Your task to perform on an android device: install app "WhatsApp Messenger" Image 0: 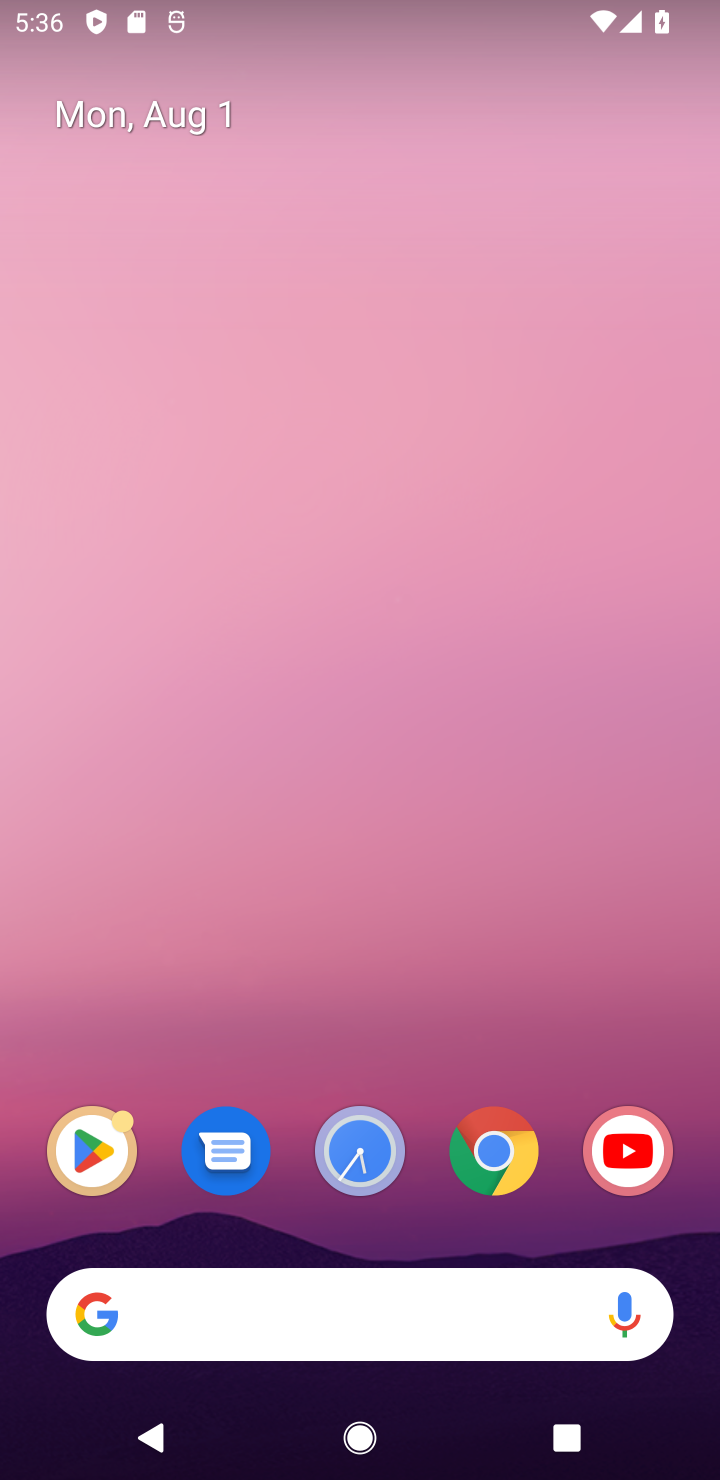
Step 0: click (92, 1156)
Your task to perform on an android device: install app "WhatsApp Messenger" Image 1: 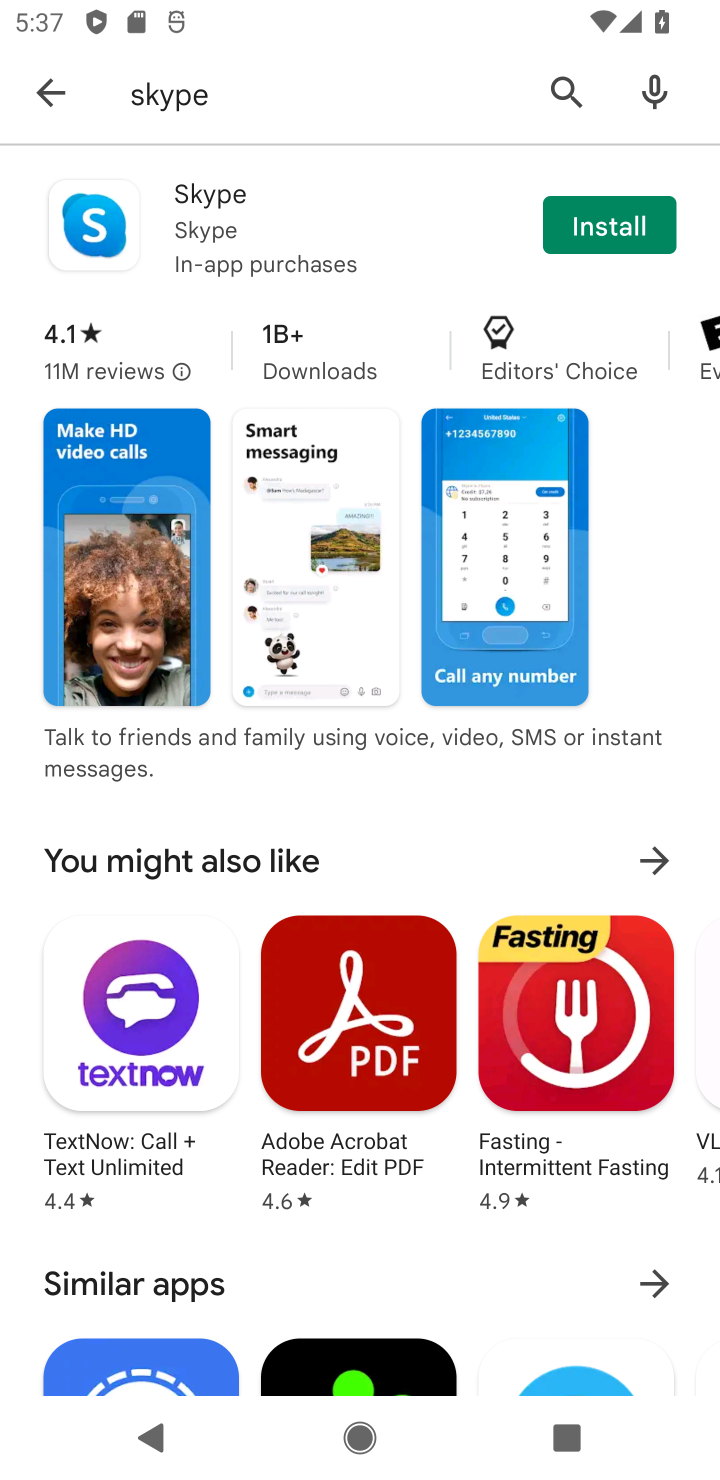
Step 1: click (555, 91)
Your task to perform on an android device: install app "WhatsApp Messenger" Image 2: 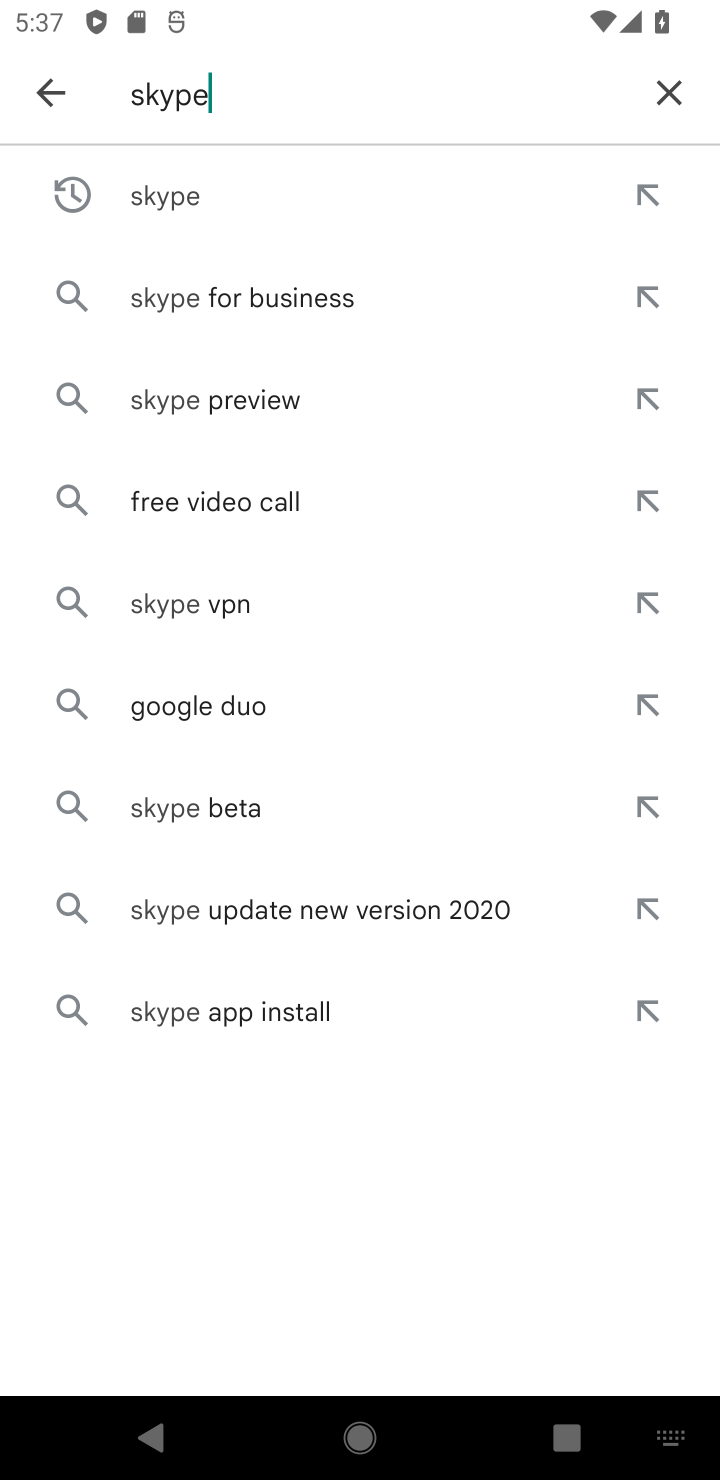
Step 2: click (673, 85)
Your task to perform on an android device: install app "WhatsApp Messenger" Image 3: 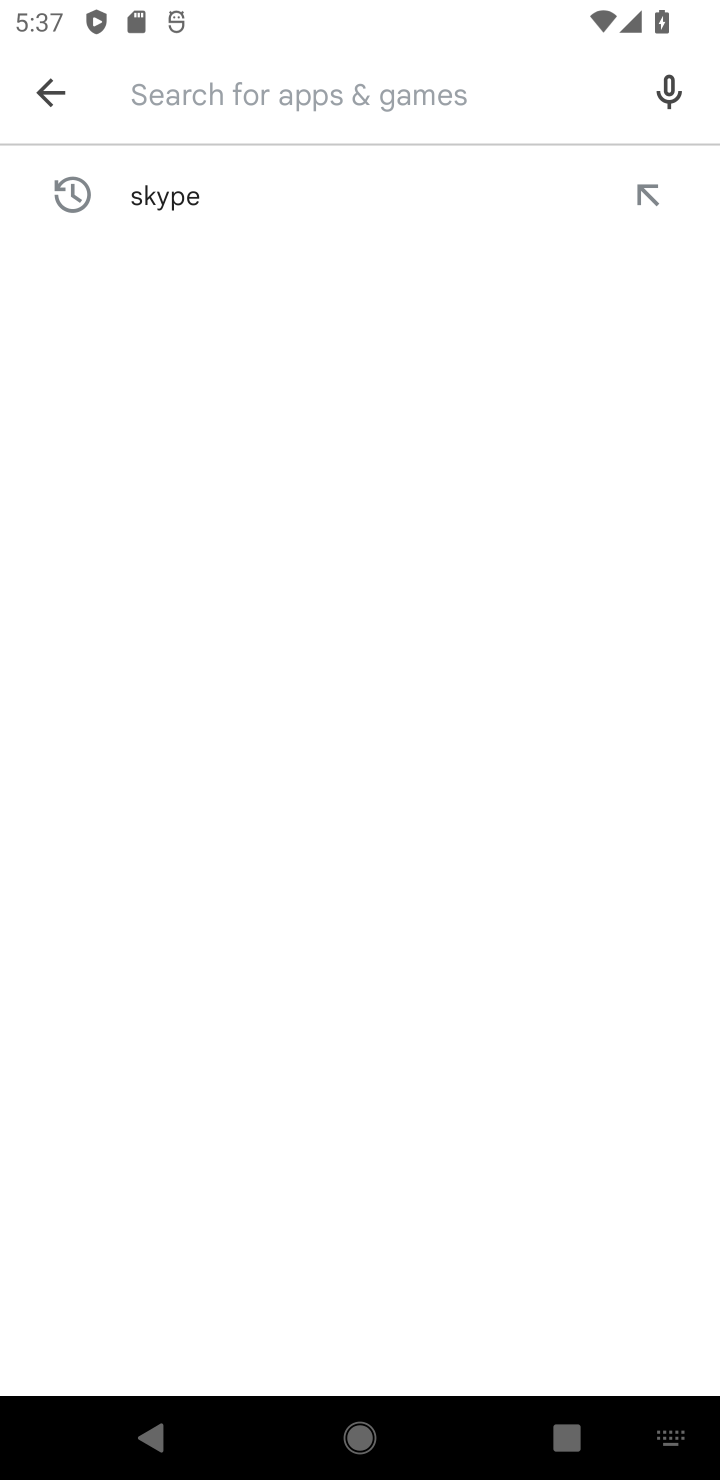
Step 3: type "WhatsApp Messenger"
Your task to perform on an android device: install app "WhatsApp Messenger" Image 4: 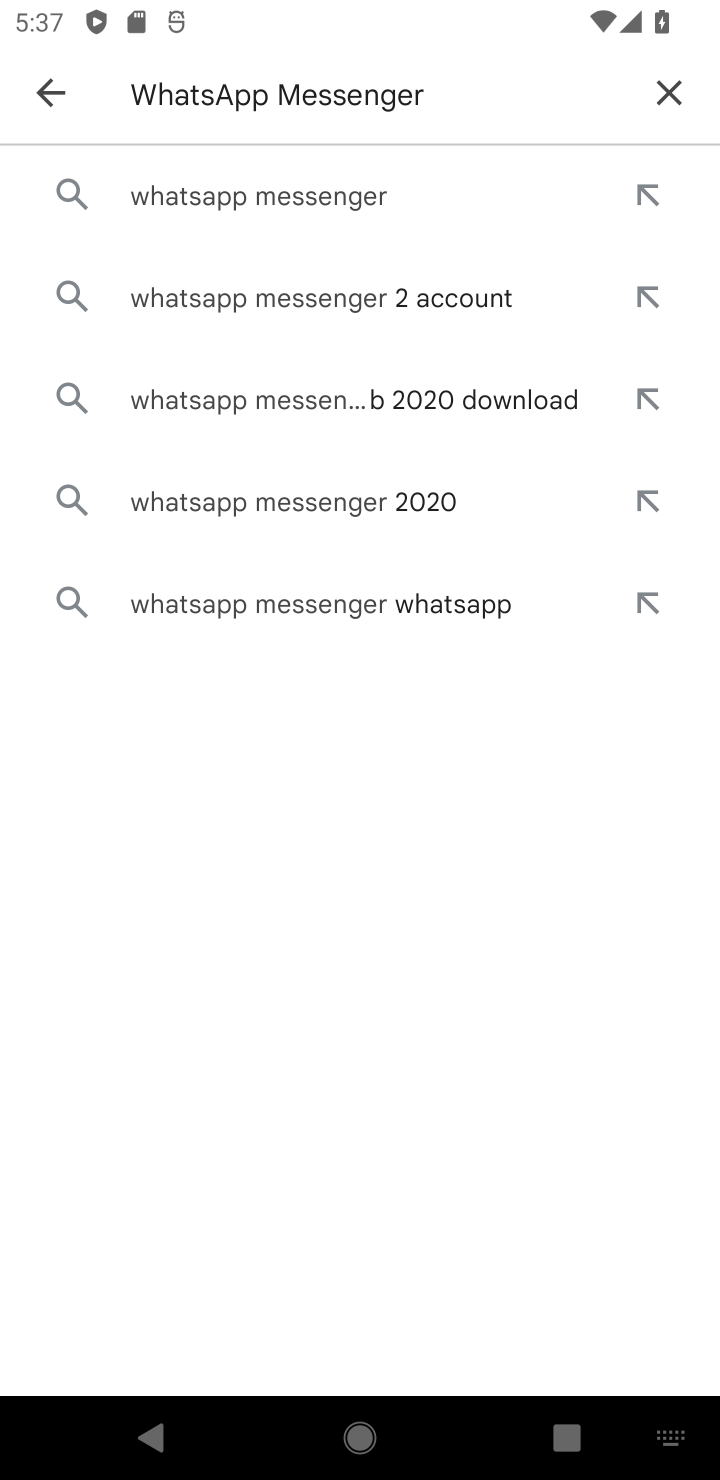
Step 4: click (219, 191)
Your task to perform on an android device: install app "WhatsApp Messenger" Image 5: 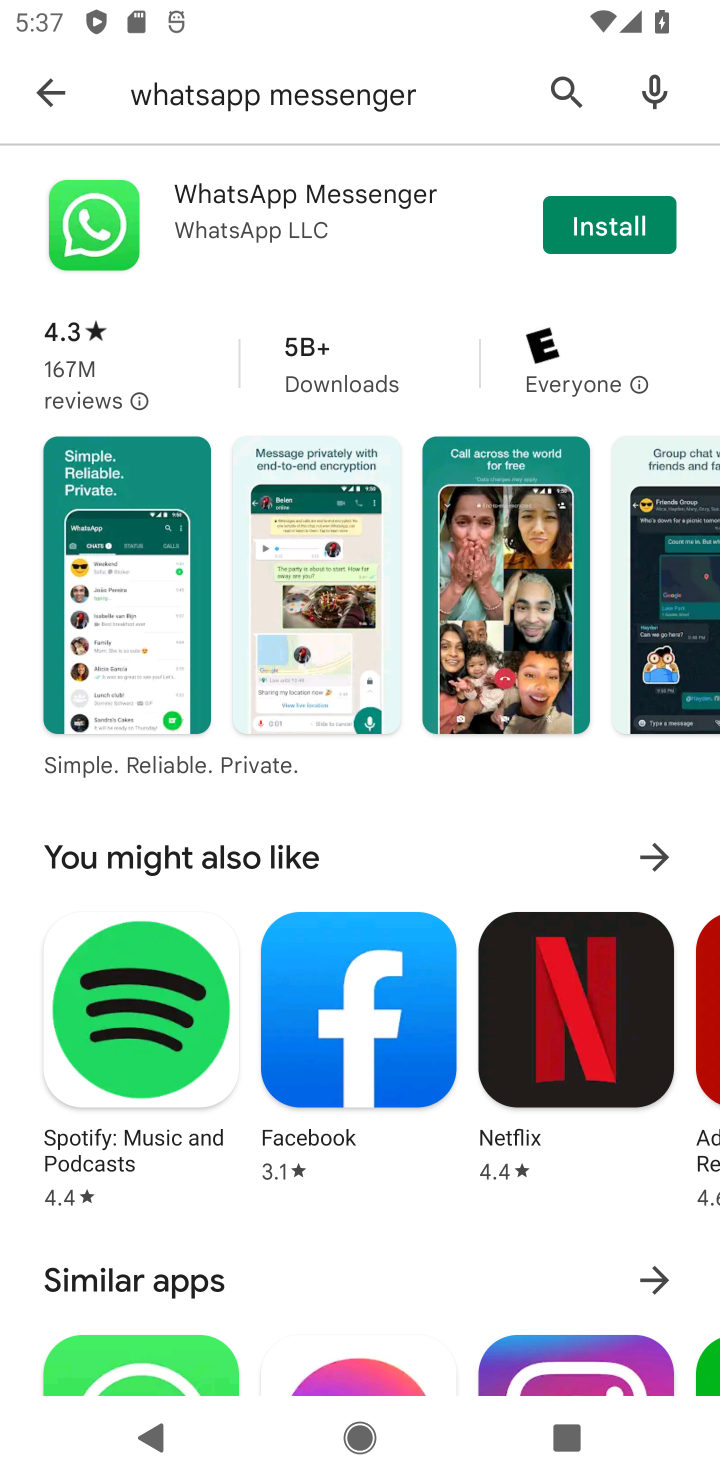
Step 5: click (586, 217)
Your task to perform on an android device: install app "WhatsApp Messenger" Image 6: 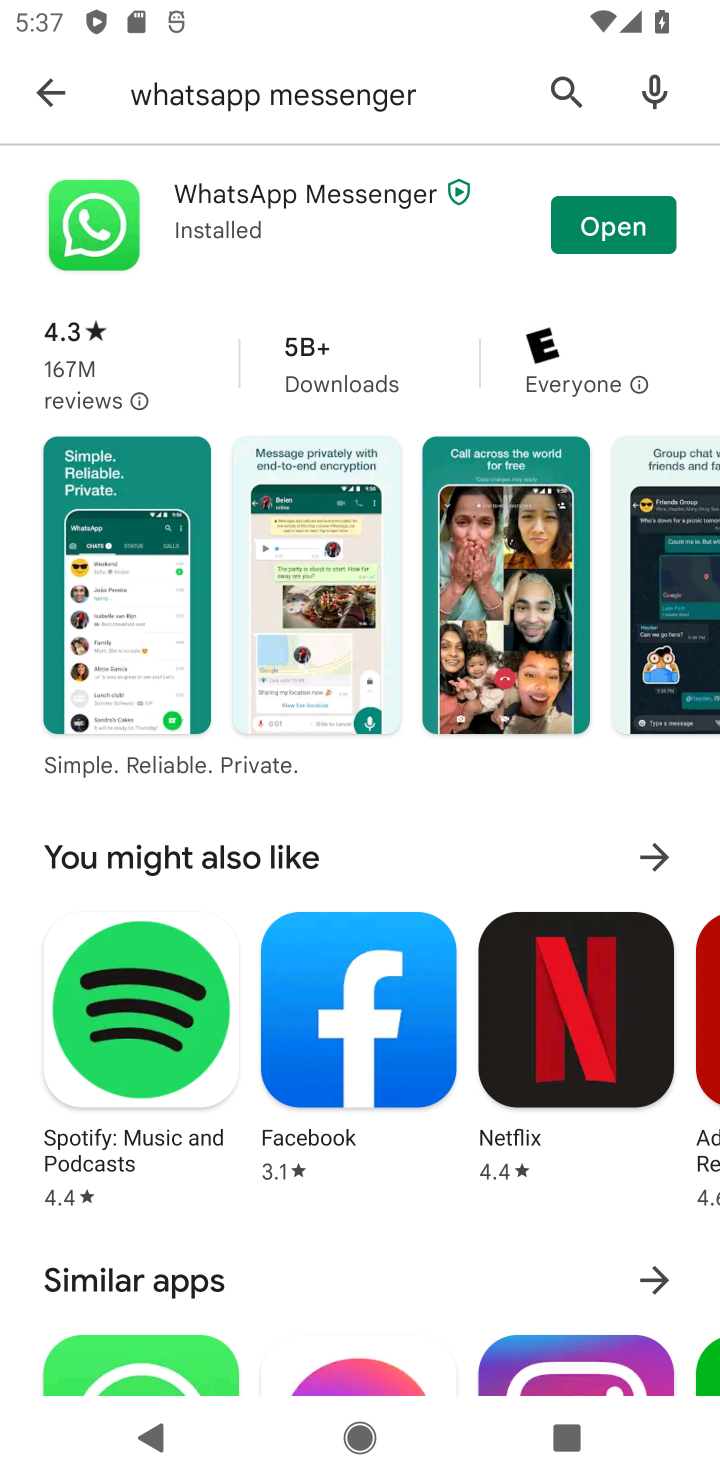
Step 6: task complete